Your task to perform on an android device: change the clock style Image 0: 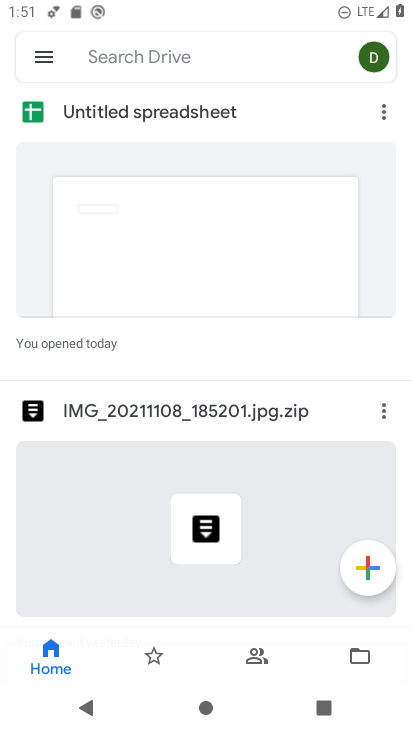
Step 0: press home button
Your task to perform on an android device: change the clock style Image 1: 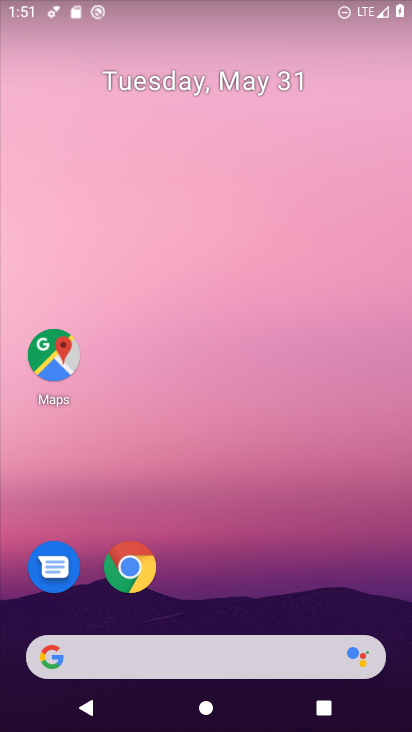
Step 1: drag from (239, 573) to (232, 207)
Your task to perform on an android device: change the clock style Image 2: 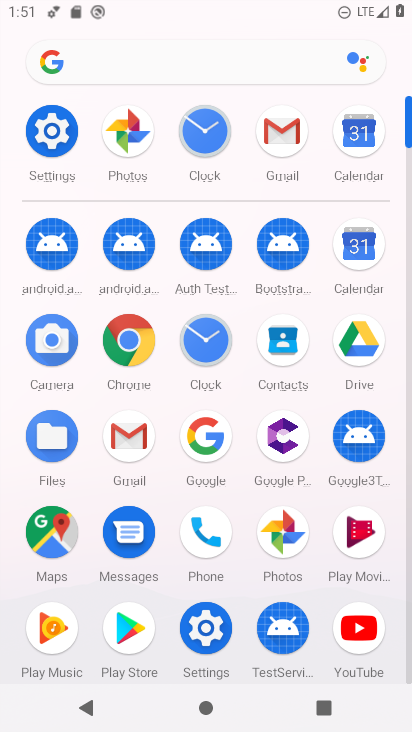
Step 2: click (207, 148)
Your task to perform on an android device: change the clock style Image 3: 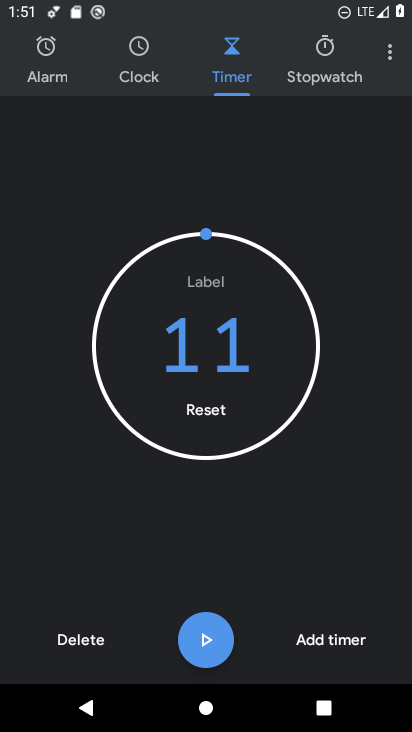
Step 3: click (382, 58)
Your task to perform on an android device: change the clock style Image 4: 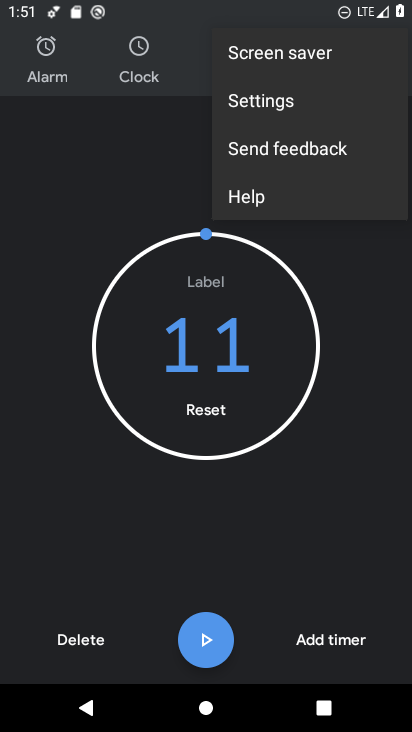
Step 4: click (314, 105)
Your task to perform on an android device: change the clock style Image 5: 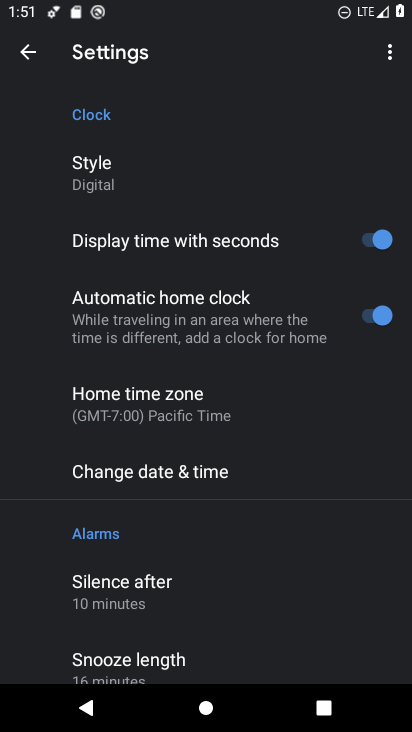
Step 5: click (156, 174)
Your task to perform on an android device: change the clock style Image 6: 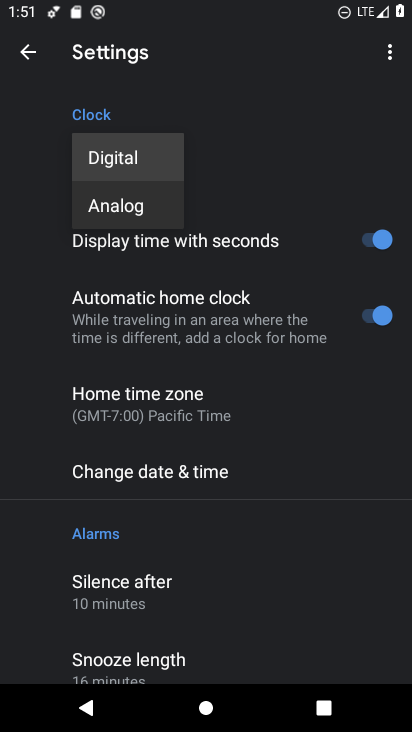
Step 6: click (155, 204)
Your task to perform on an android device: change the clock style Image 7: 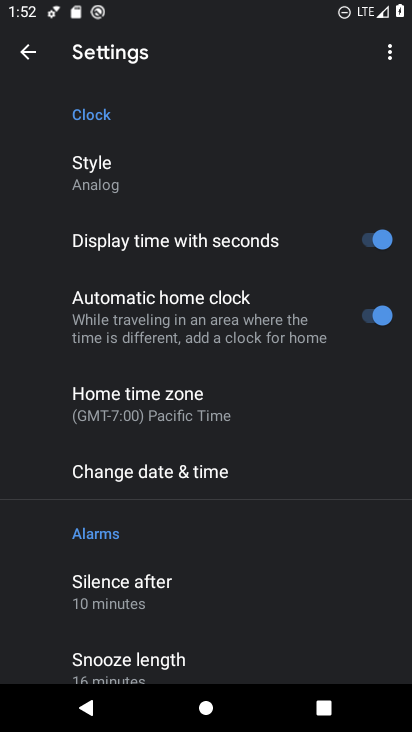
Step 7: task complete